Your task to perform on an android device: delete the emails in spam in the gmail app Image 0: 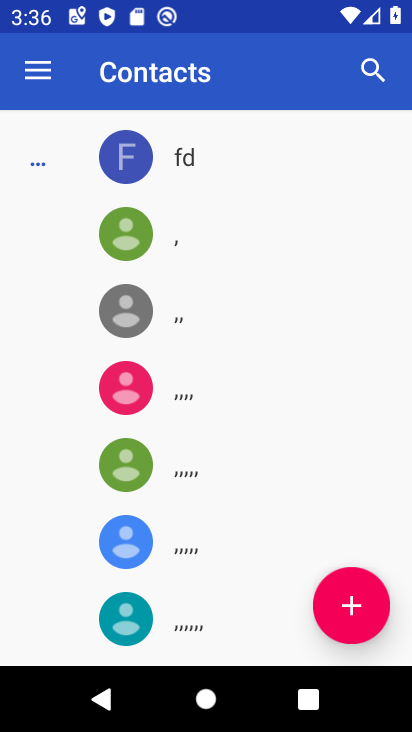
Step 0: press home button
Your task to perform on an android device: delete the emails in spam in the gmail app Image 1: 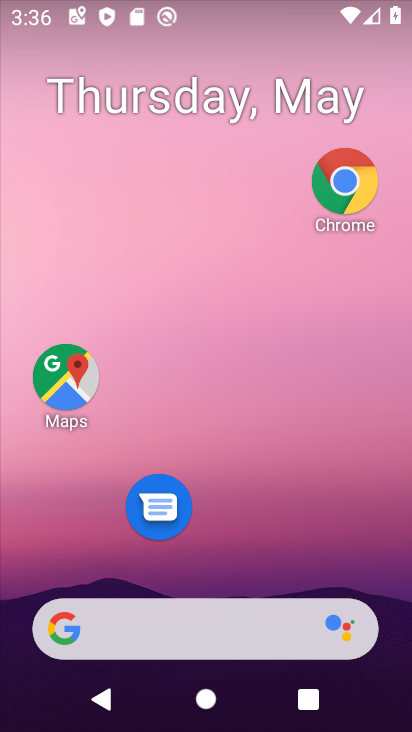
Step 1: drag from (254, 454) to (245, 119)
Your task to perform on an android device: delete the emails in spam in the gmail app Image 2: 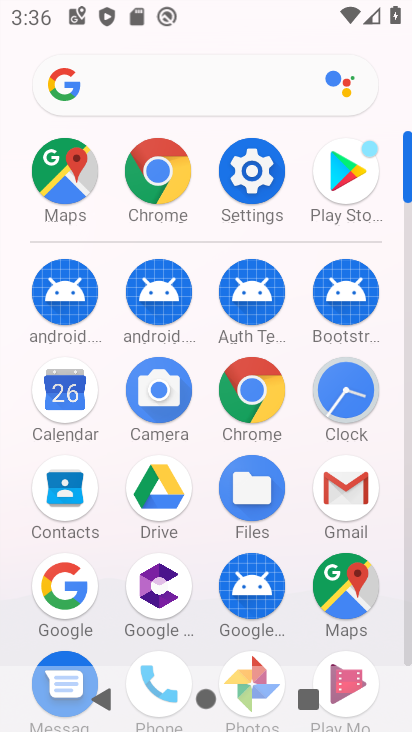
Step 2: click (340, 491)
Your task to perform on an android device: delete the emails in spam in the gmail app Image 3: 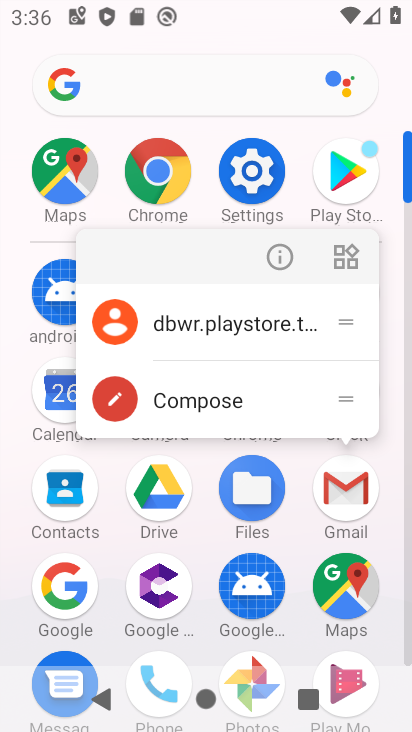
Step 3: click (340, 491)
Your task to perform on an android device: delete the emails in spam in the gmail app Image 4: 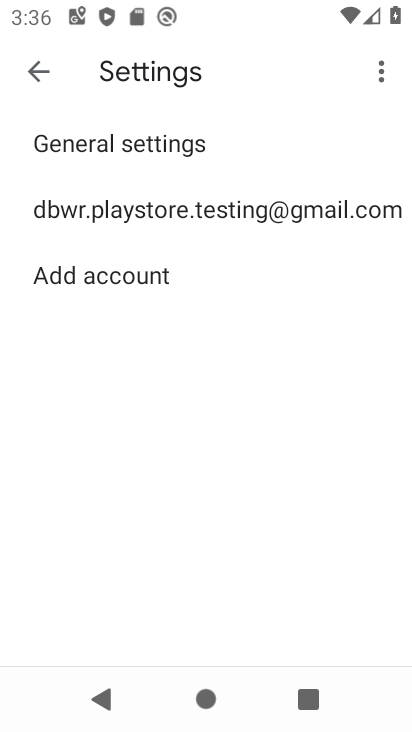
Step 4: click (274, 205)
Your task to perform on an android device: delete the emails in spam in the gmail app Image 5: 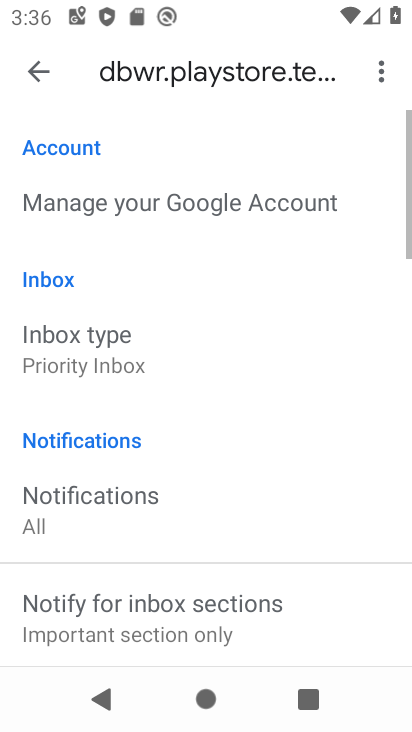
Step 5: click (35, 68)
Your task to perform on an android device: delete the emails in spam in the gmail app Image 6: 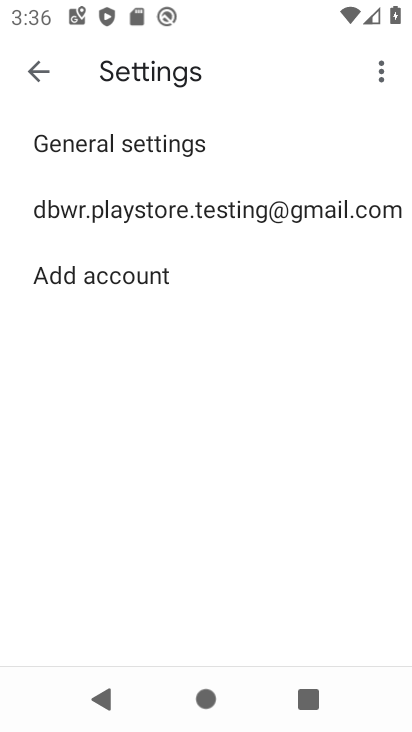
Step 6: click (35, 68)
Your task to perform on an android device: delete the emails in spam in the gmail app Image 7: 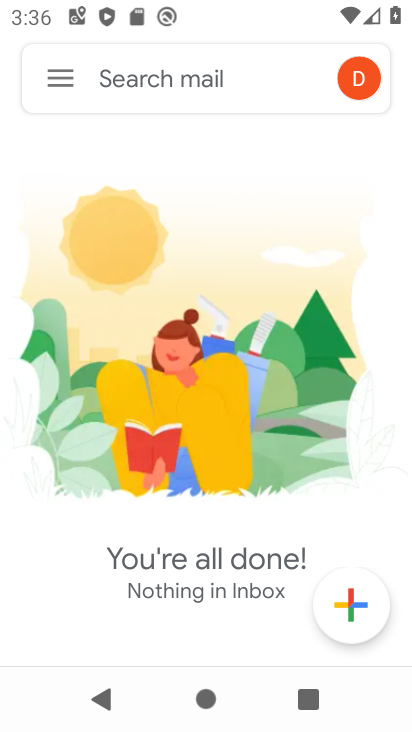
Step 7: click (48, 80)
Your task to perform on an android device: delete the emails in spam in the gmail app Image 8: 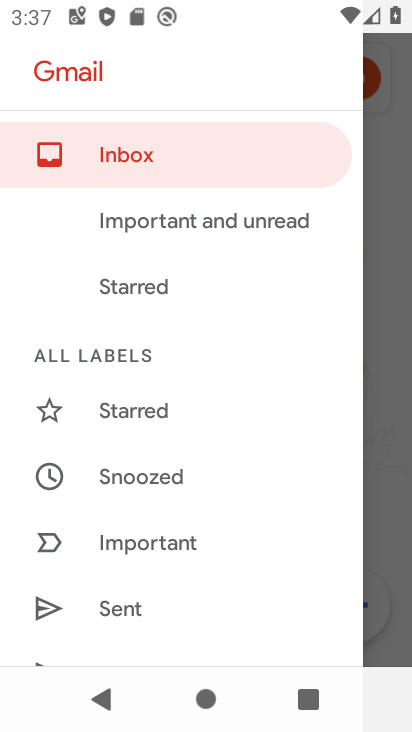
Step 8: drag from (197, 614) to (227, 233)
Your task to perform on an android device: delete the emails in spam in the gmail app Image 9: 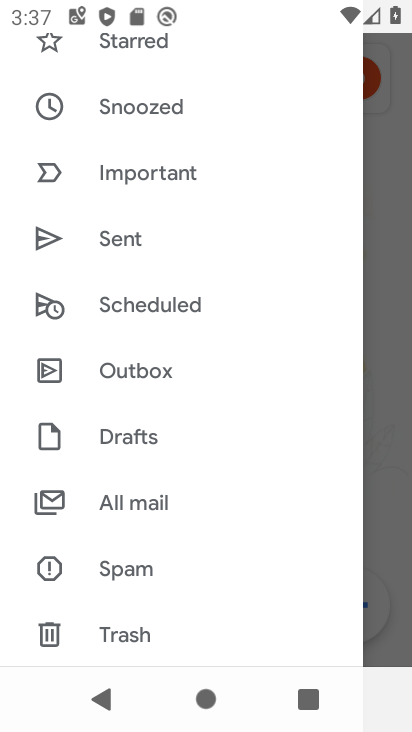
Step 9: click (118, 567)
Your task to perform on an android device: delete the emails in spam in the gmail app Image 10: 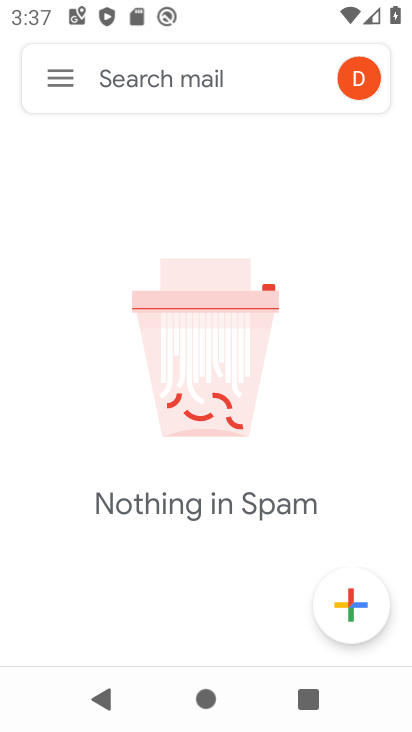
Step 10: task complete